Your task to perform on an android device: Show me popular games on the Play Store Image 0: 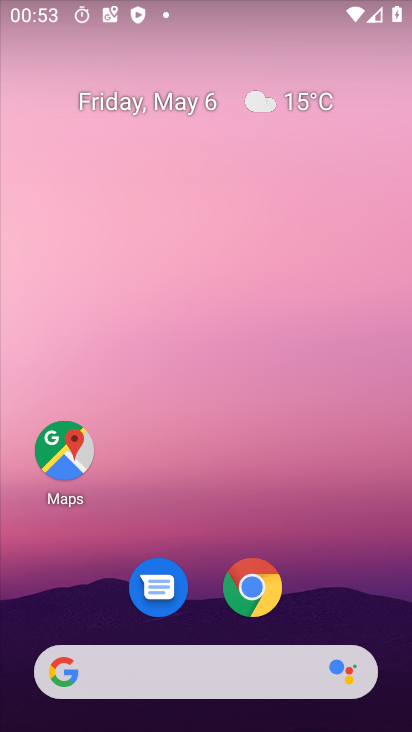
Step 0: drag from (378, 547) to (368, 254)
Your task to perform on an android device: Show me popular games on the Play Store Image 1: 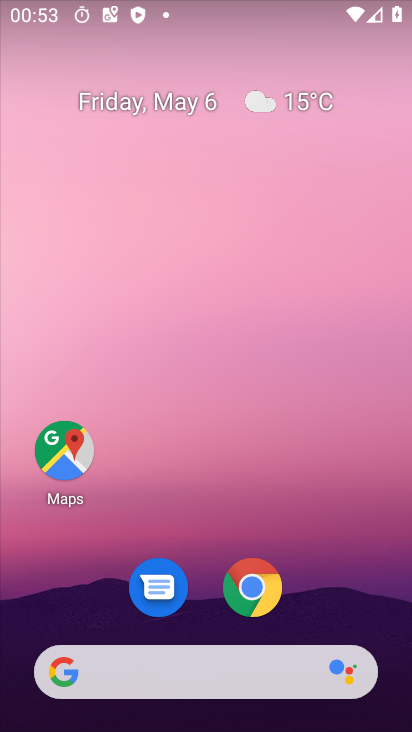
Step 1: drag from (398, 644) to (381, 306)
Your task to perform on an android device: Show me popular games on the Play Store Image 2: 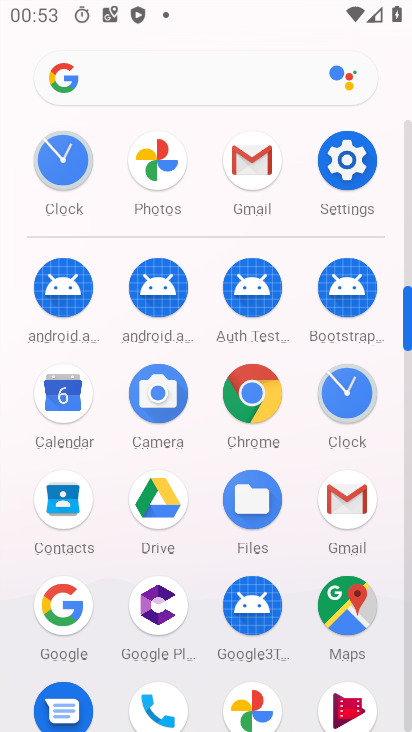
Step 2: drag from (406, 295) to (404, 165)
Your task to perform on an android device: Show me popular games on the Play Store Image 3: 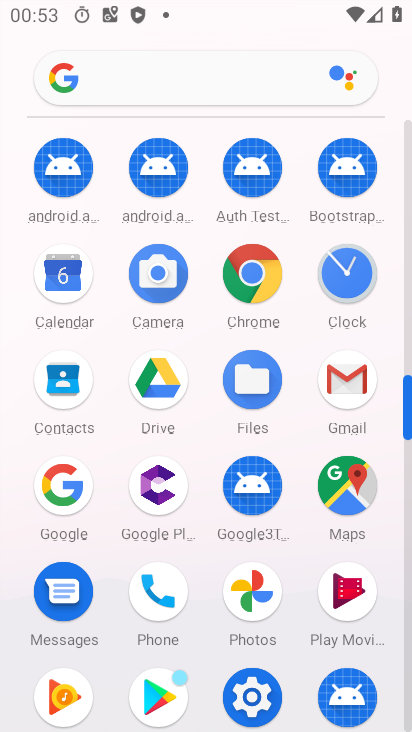
Step 3: click (151, 687)
Your task to perform on an android device: Show me popular games on the Play Store Image 4: 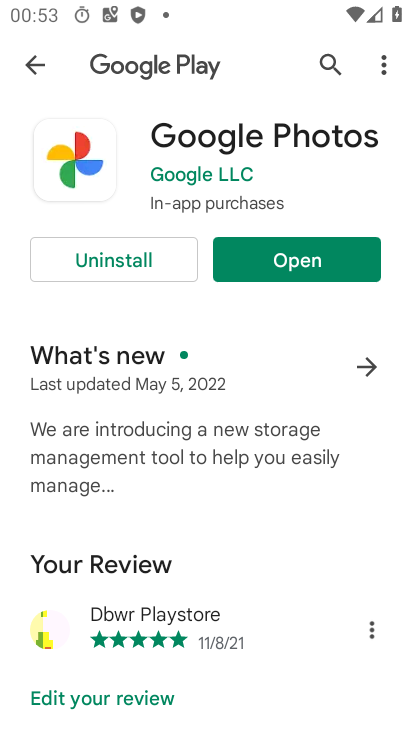
Step 4: click (273, 261)
Your task to perform on an android device: Show me popular games on the Play Store Image 5: 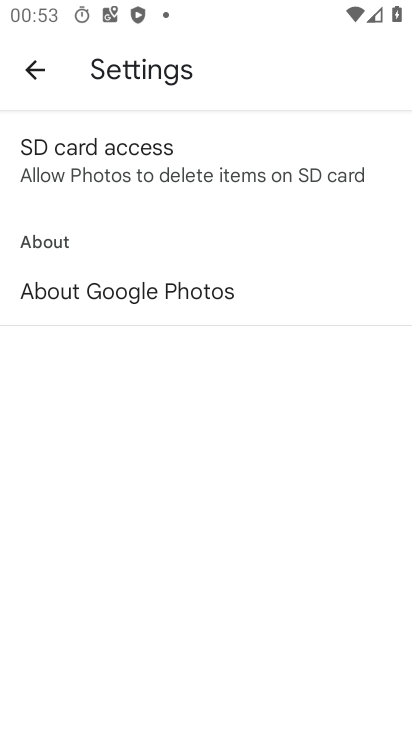
Step 5: press back button
Your task to perform on an android device: Show me popular games on the Play Store Image 6: 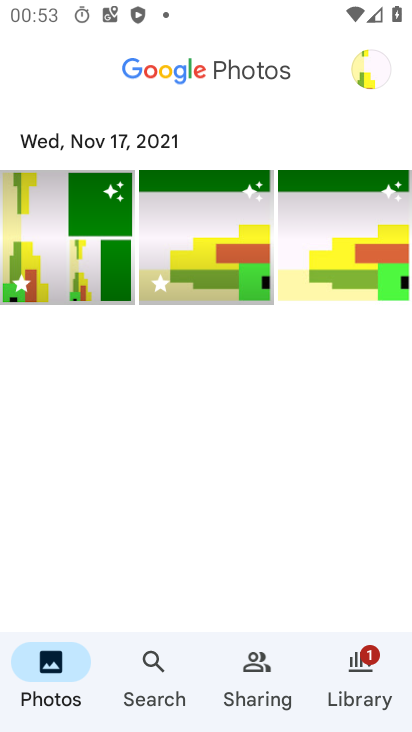
Step 6: press back button
Your task to perform on an android device: Show me popular games on the Play Store Image 7: 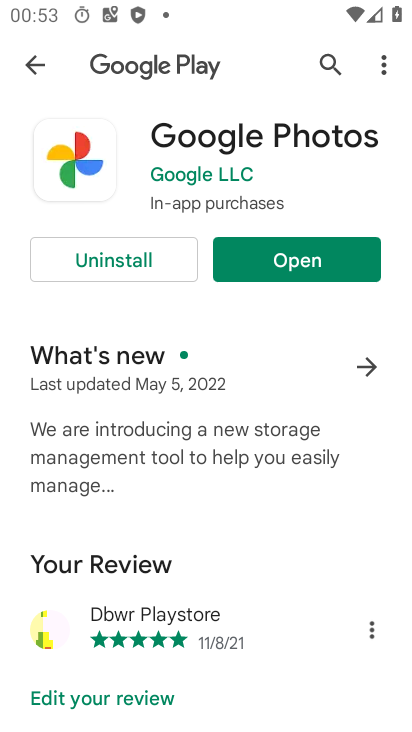
Step 7: press back button
Your task to perform on an android device: Show me popular games on the Play Store Image 8: 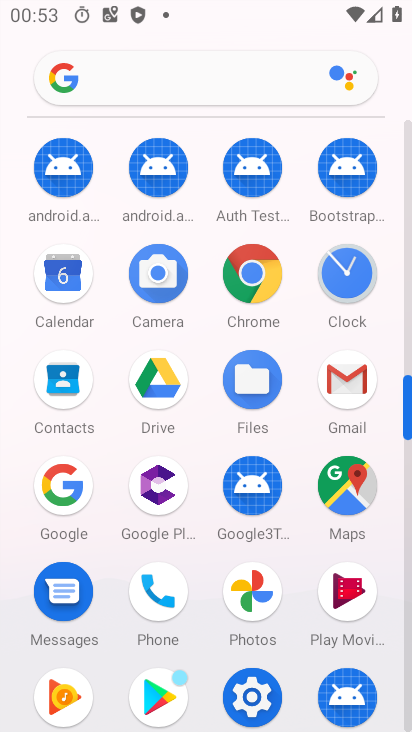
Step 8: click (178, 690)
Your task to perform on an android device: Show me popular games on the Play Store Image 9: 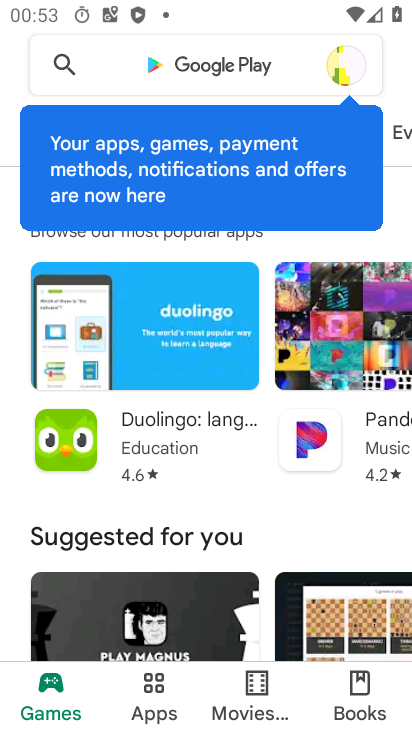
Step 9: click (286, 72)
Your task to perform on an android device: Show me popular games on the Play Store Image 10: 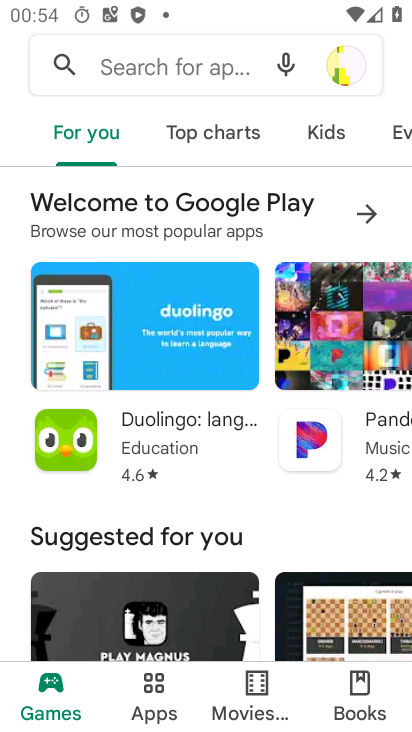
Step 10: type " popular games"
Your task to perform on an android device: Show me popular games on the Play Store Image 11: 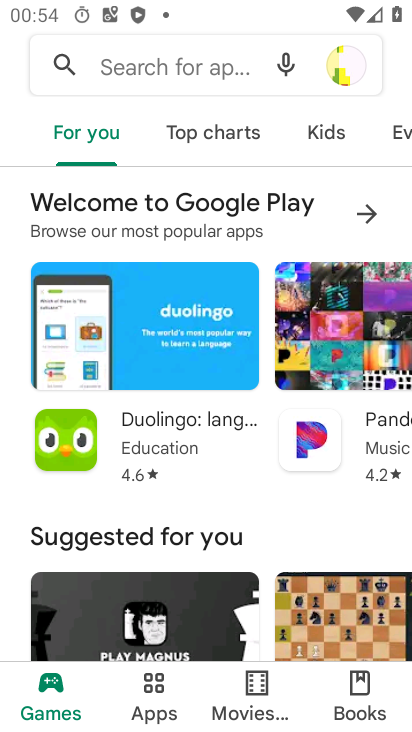
Step 11: click (164, 68)
Your task to perform on an android device: Show me popular games on the Play Store Image 12: 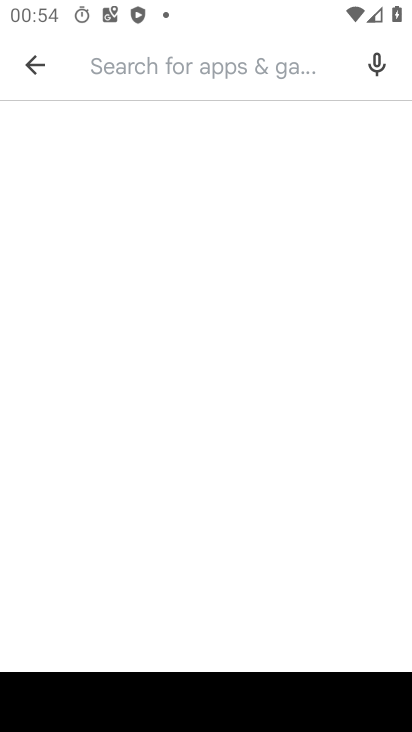
Step 12: type " popular games"
Your task to perform on an android device: Show me popular games on the Play Store Image 13: 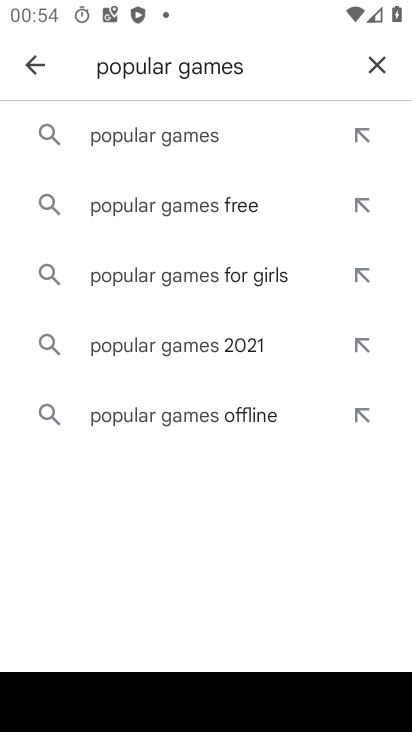
Step 13: click (191, 139)
Your task to perform on an android device: Show me popular games on the Play Store Image 14: 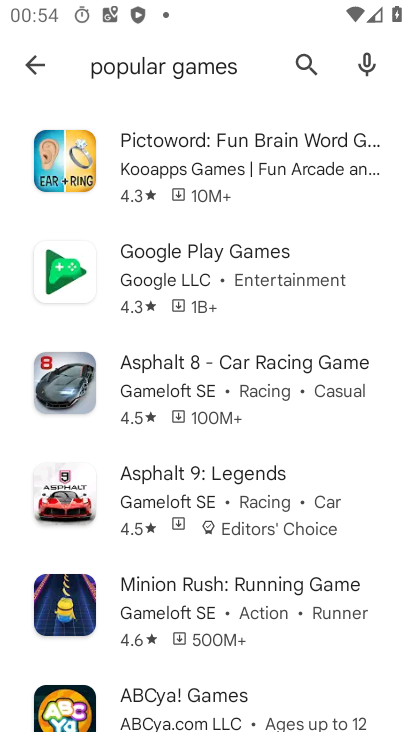
Step 14: task complete